Your task to perform on an android device: check battery use Image 0: 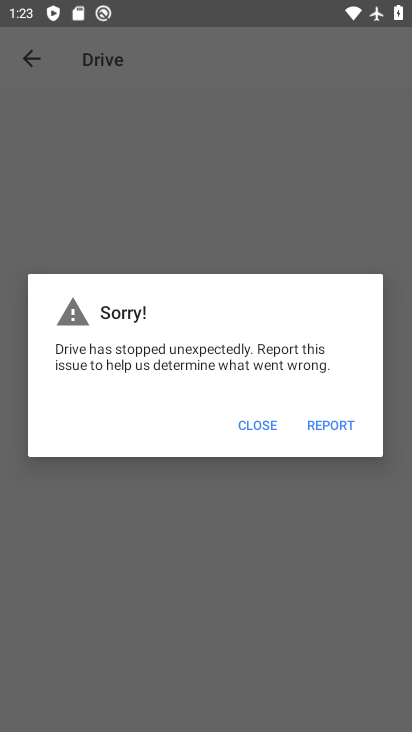
Step 0: press home button
Your task to perform on an android device: check battery use Image 1: 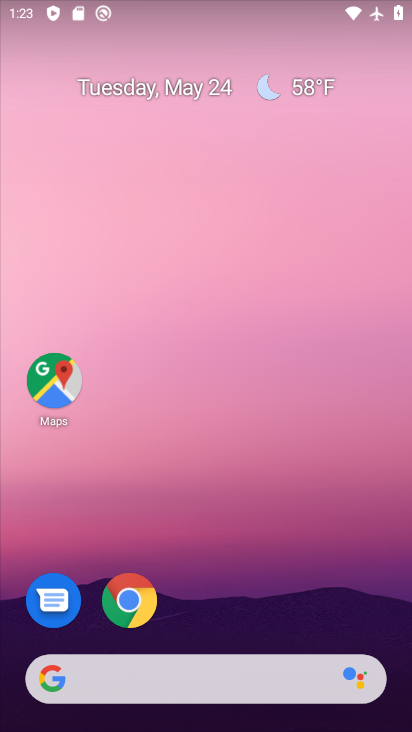
Step 1: drag from (303, 600) to (174, 38)
Your task to perform on an android device: check battery use Image 2: 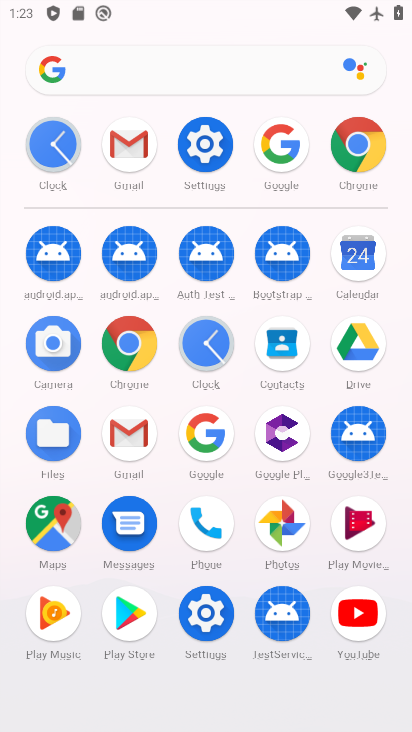
Step 2: click (206, 153)
Your task to perform on an android device: check battery use Image 3: 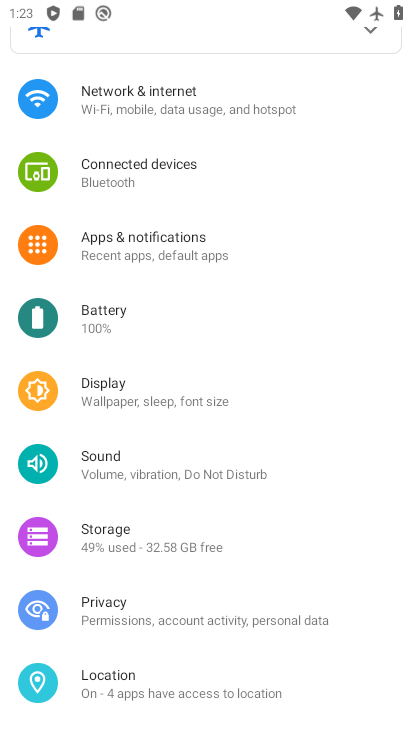
Step 3: click (212, 322)
Your task to perform on an android device: check battery use Image 4: 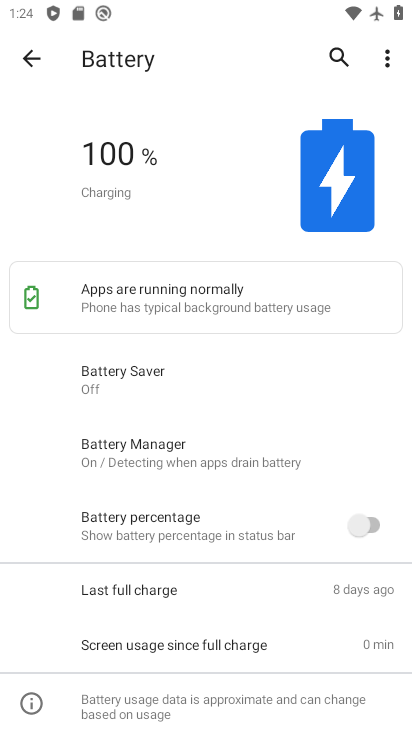
Step 4: task complete